Your task to perform on an android device: delete location history Image 0: 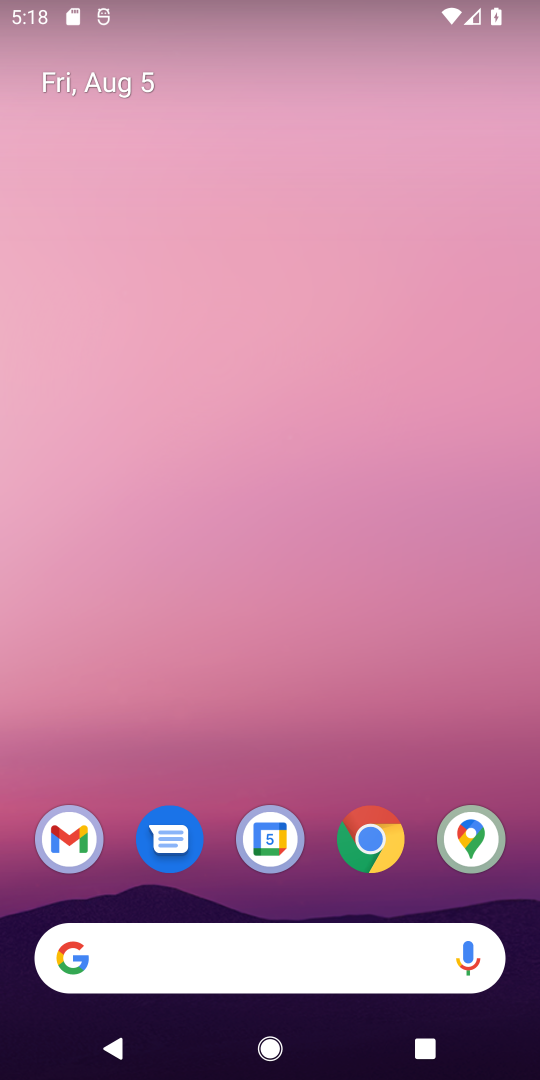
Step 0: drag from (282, 778) to (290, 118)
Your task to perform on an android device: delete location history Image 1: 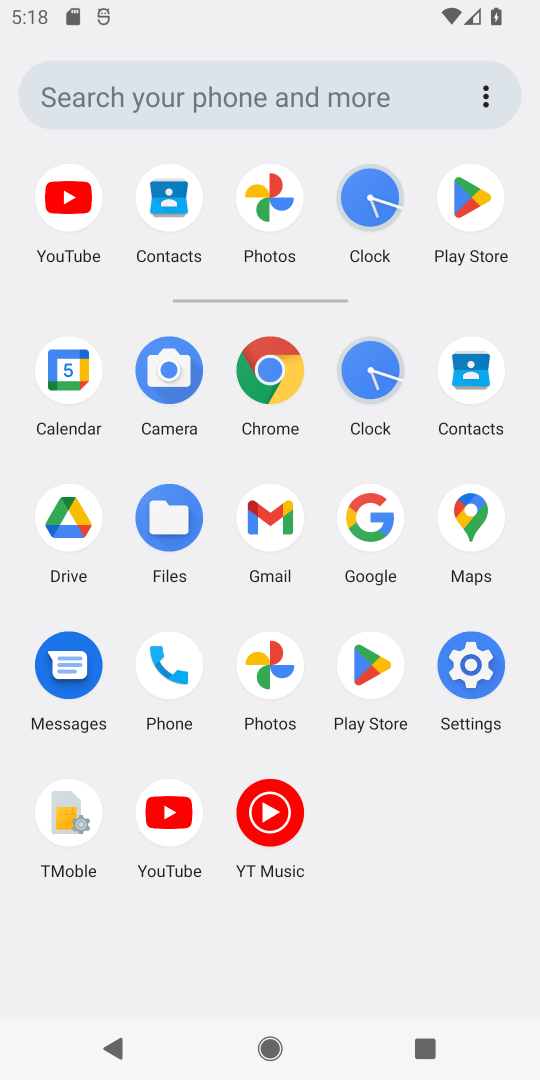
Step 1: click (456, 518)
Your task to perform on an android device: delete location history Image 2: 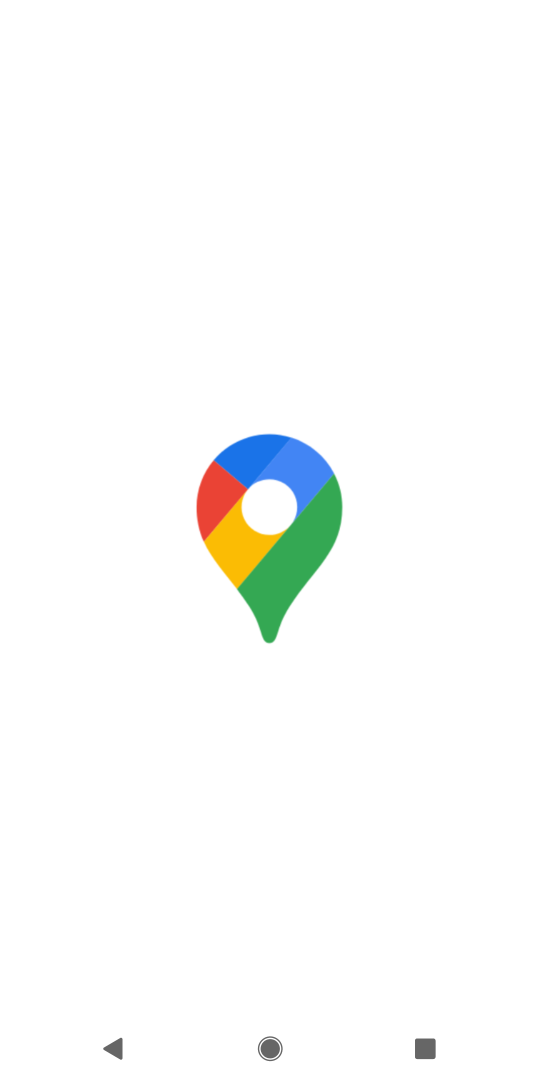
Step 2: task complete